Your task to perform on an android device: Go to Amazon Image 0: 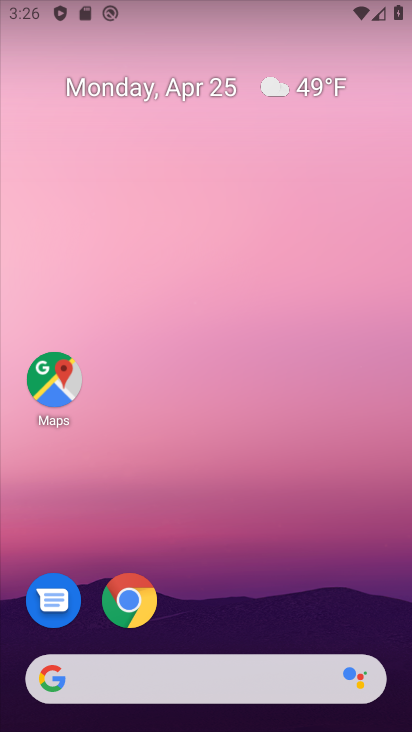
Step 0: click (256, 673)
Your task to perform on an android device: Go to Amazon Image 1: 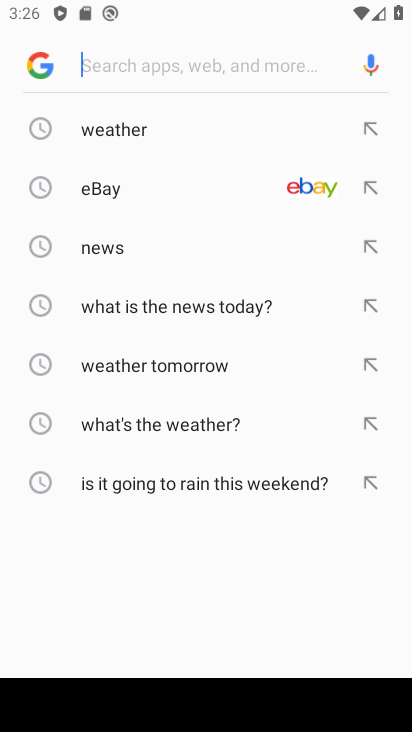
Step 1: type "amazon"
Your task to perform on an android device: Go to Amazon Image 2: 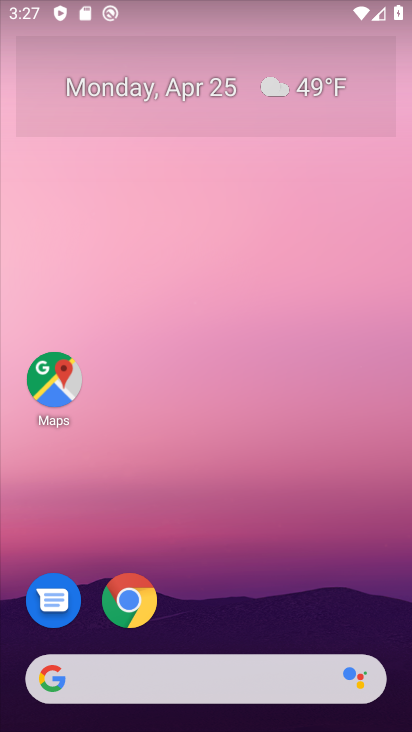
Step 2: click (133, 601)
Your task to perform on an android device: Go to Amazon Image 3: 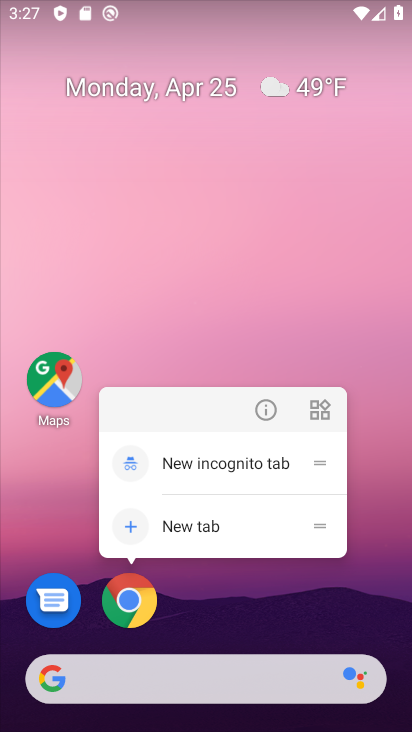
Step 3: click (133, 601)
Your task to perform on an android device: Go to Amazon Image 4: 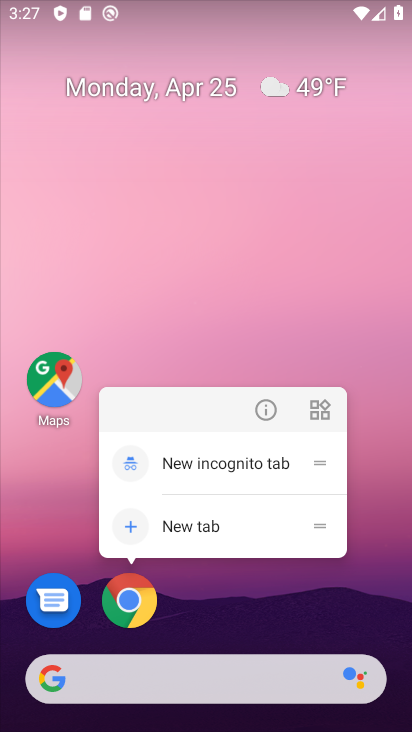
Step 4: click (119, 601)
Your task to perform on an android device: Go to Amazon Image 5: 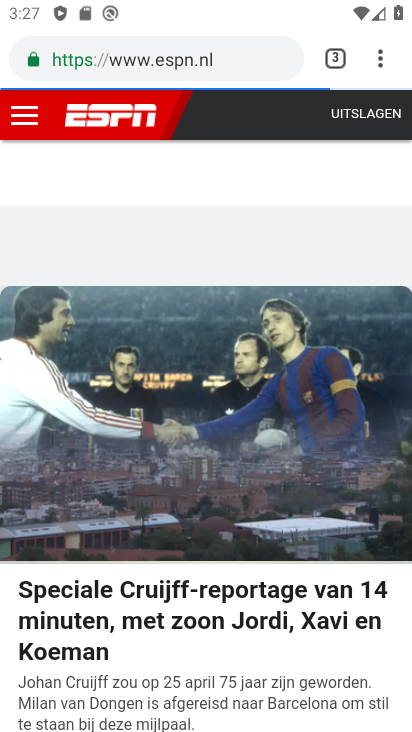
Step 5: click (376, 55)
Your task to perform on an android device: Go to Amazon Image 6: 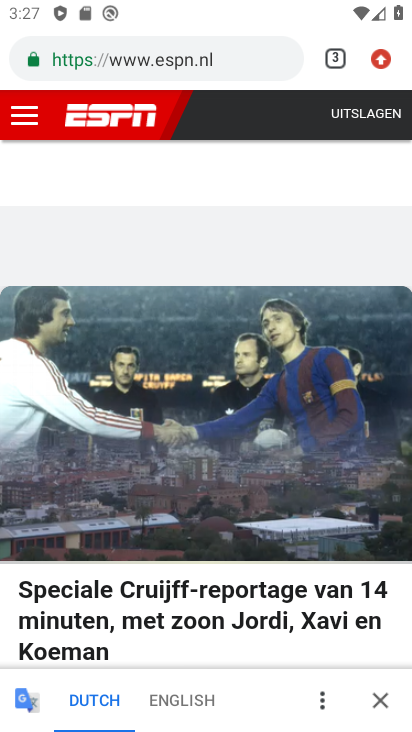
Step 6: click (376, 55)
Your task to perform on an android device: Go to Amazon Image 7: 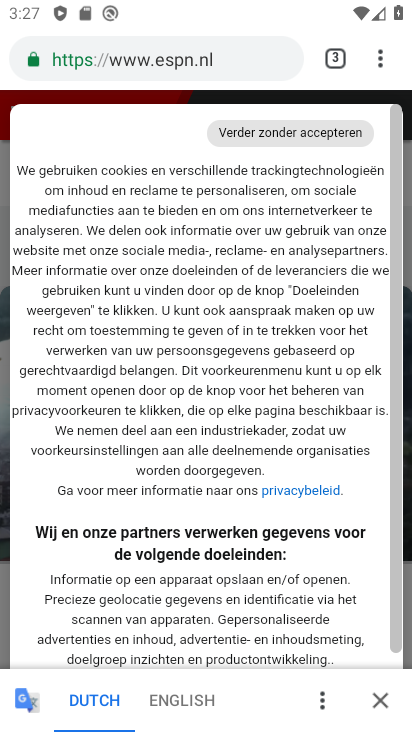
Step 7: drag from (376, 53) to (242, 185)
Your task to perform on an android device: Go to Amazon Image 8: 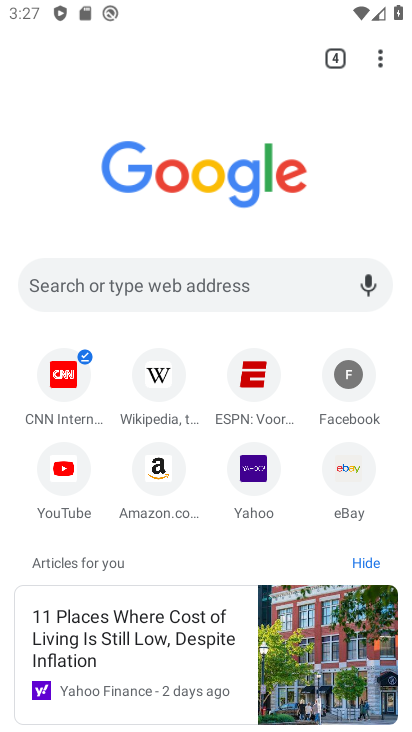
Step 8: click (159, 466)
Your task to perform on an android device: Go to Amazon Image 9: 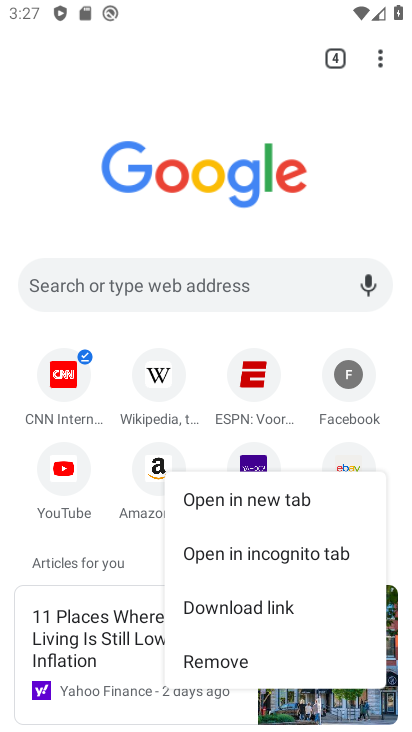
Step 9: click (159, 466)
Your task to perform on an android device: Go to Amazon Image 10: 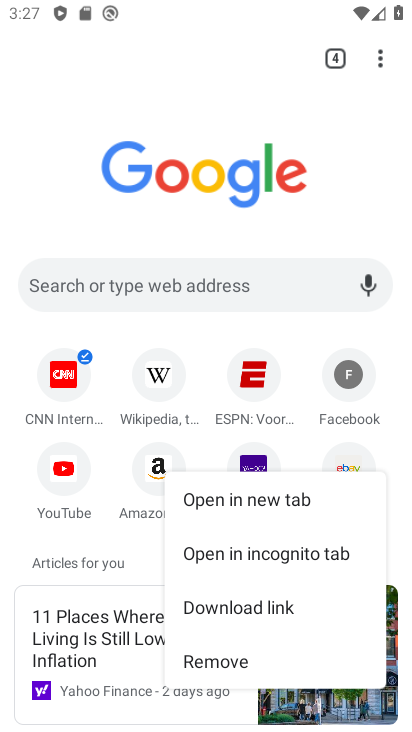
Step 10: click (152, 457)
Your task to perform on an android device: Go to Amazon Image 11: 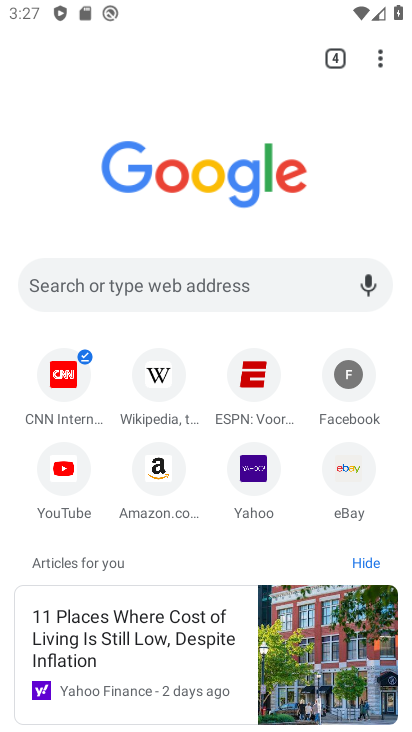
Step 11: click (152, 457)
Your task to perform on an android device: Go to Amazon Image 12: 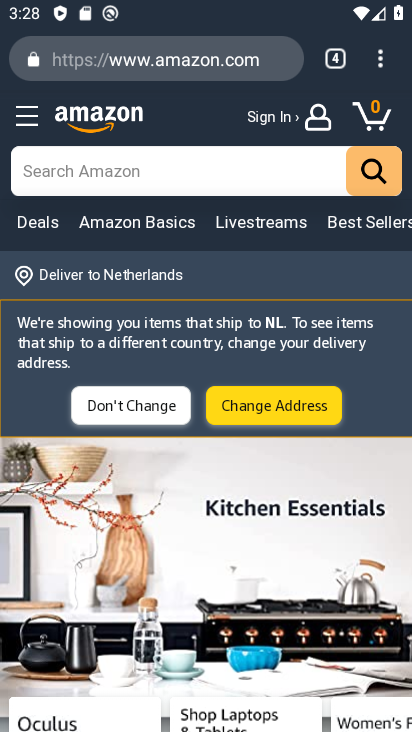
Step 12: task complete